Your task to perform on an android device: What's on my calendar tomorrow? Image 0: 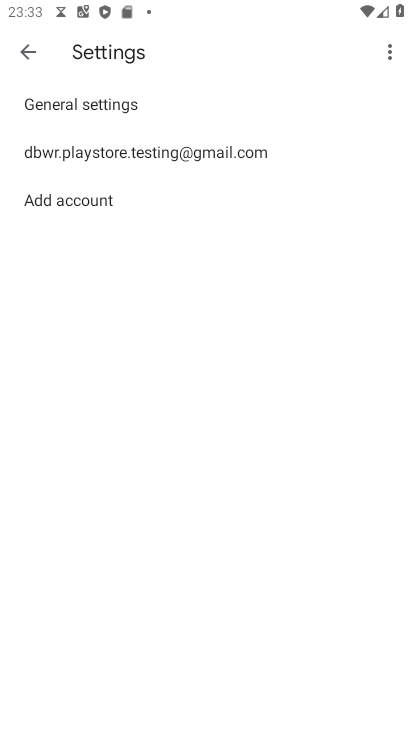
Step 0: press back button
Your task to perform on an android device: What's on my calendar tomorrow? Image 1: 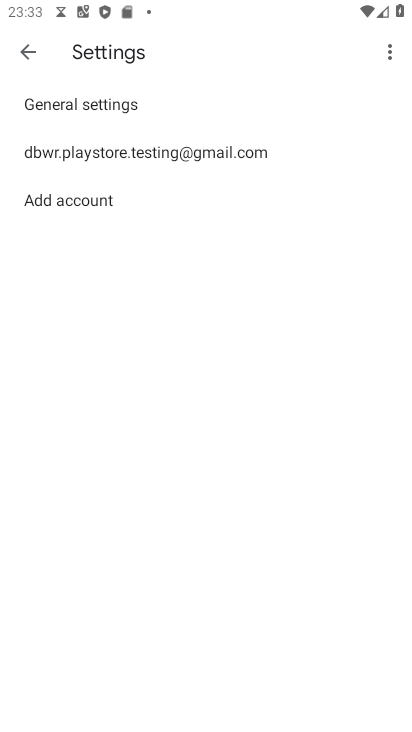
Step 1: press back button
Your task to perform on an android device: What's on my calendar tomorrow? Image 2: 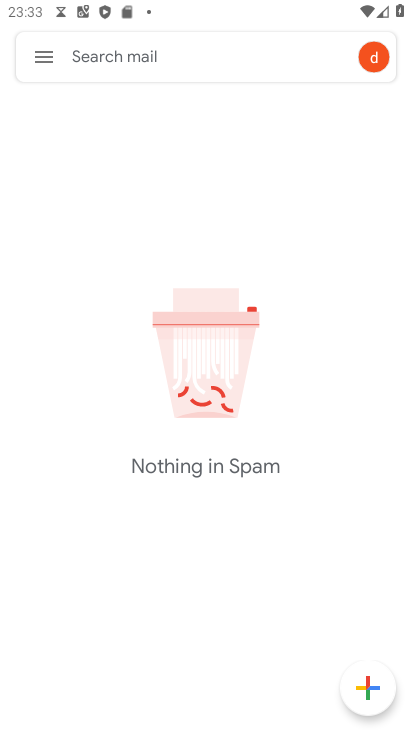
Step 2: press back button
Your task to perform on an android device: What's on my calendar tomorrow? Image 3: 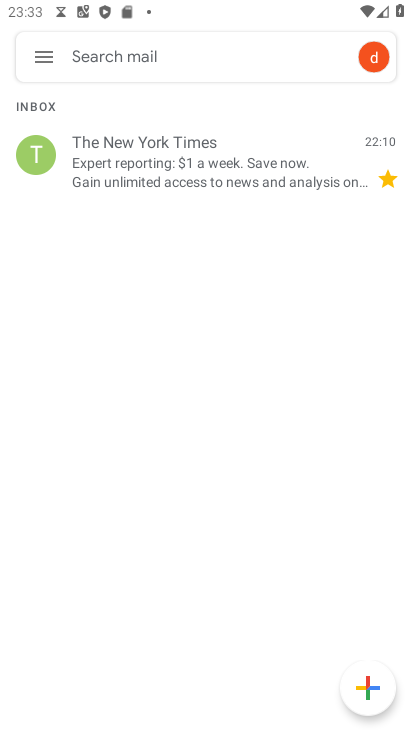
Step 3: press back button
Your task to perform on an android device: What's on my calendar tomorrow? Image 4: 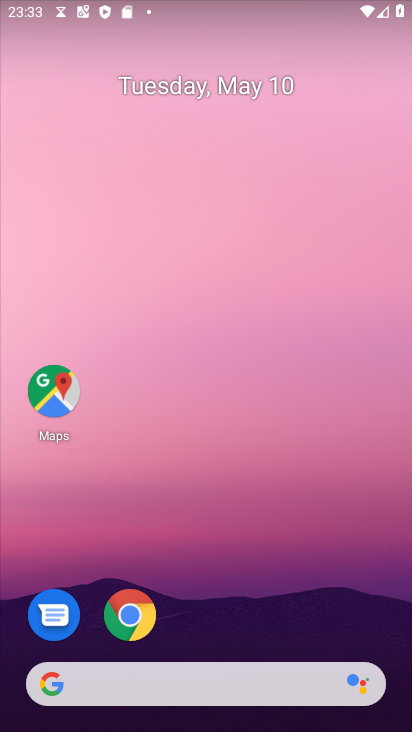
Step 4: drag from (229, 566) to (211, 100)
Your task to perform on an android device: What's on my calendar tomorrow? Image 5: 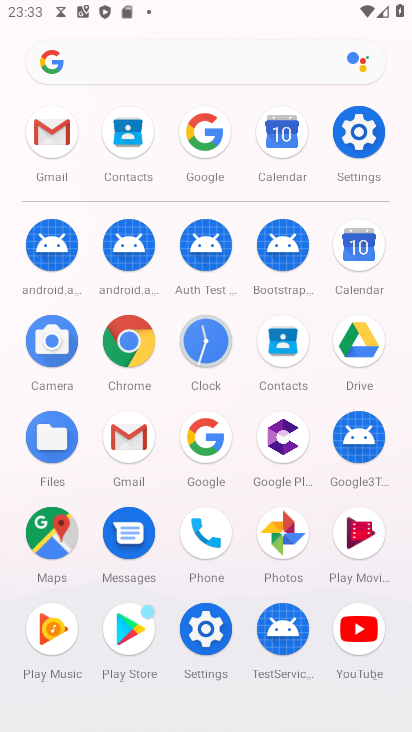
Step 5: click (283, 137)
Your task to perform on an android device: What's on my calendar tomorrow? Image 6: 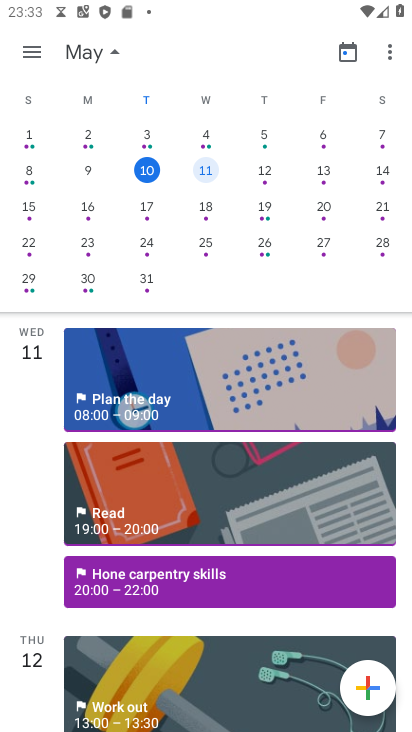
Step 6: click (208, 175)
Your task to perform on an android device: What's on my calendar tomorrow? Image 7: 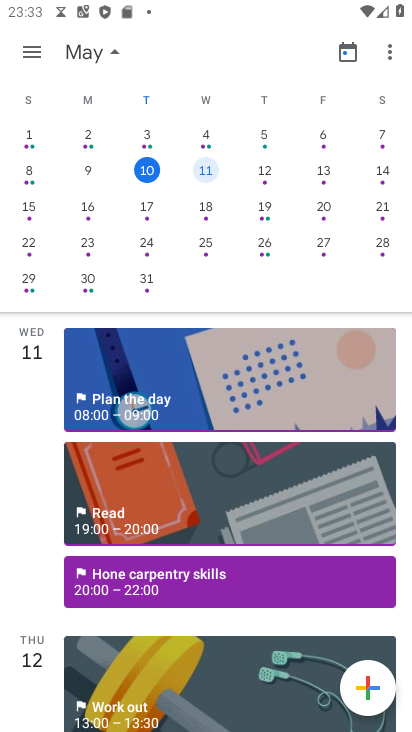
Step 7: click (35, 53)
Your task to perform on an android device: What's on my calendar tomorrow? Image 8: 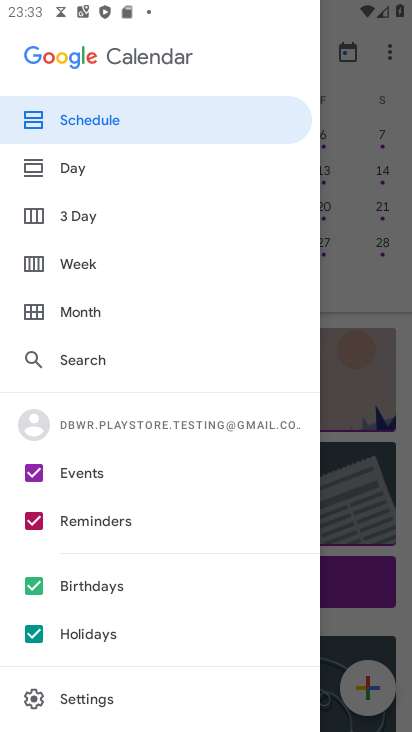
Step 8: click (128, 120)
Your task to perform on an android device: What's on my calendar tomorrow? Image 9: 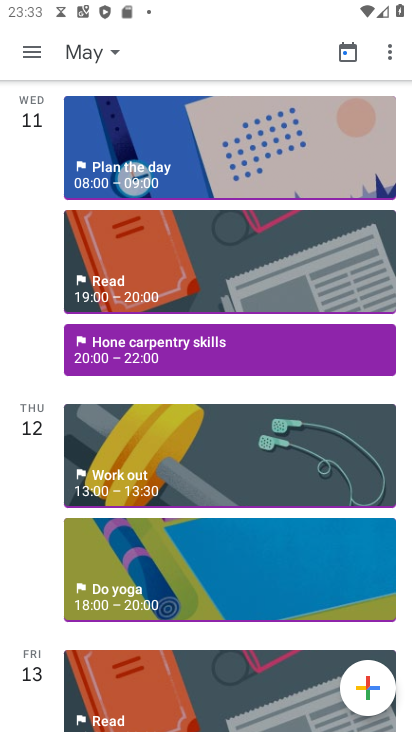
Step 9: task complete